Your task to perform on an android device: open a new tab in the chrome app Image 0: 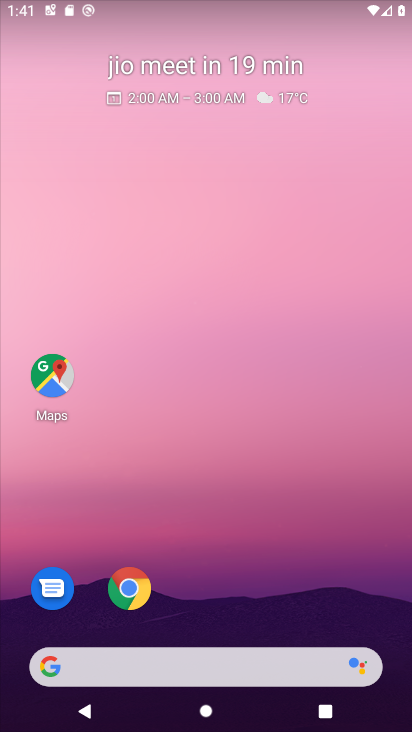
Step 0: click (101, 592)
Your task to perform on an android device: open a new tab in the chrome app Image 1: 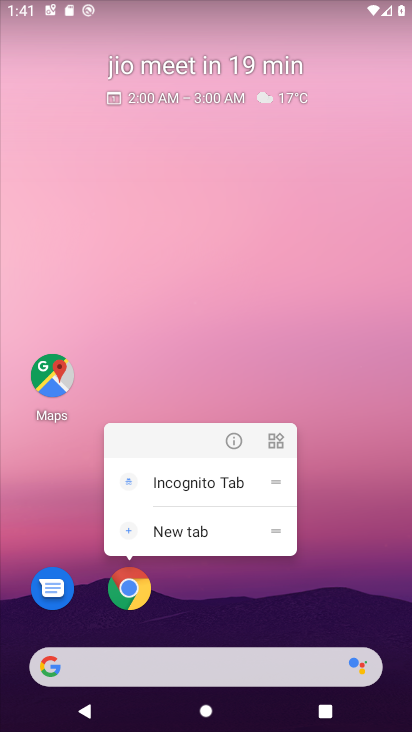
Step 1: click (137, 596)
Your task to perform on an android device: open a new tab in the chrome app Image 2: 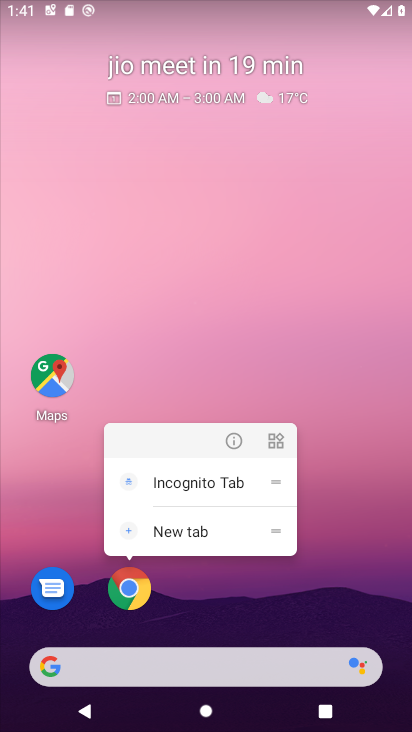
Step 2: click (137, 596)
Your task to perform on an android device: open a new tab in the chrome app Image 3: 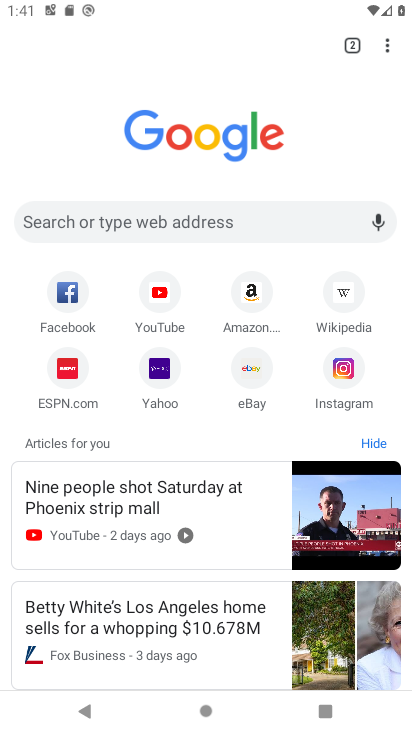
Step 3: click (388, 48)
Your task to perform on an android device: open a new tab in the chrome app Image 4: 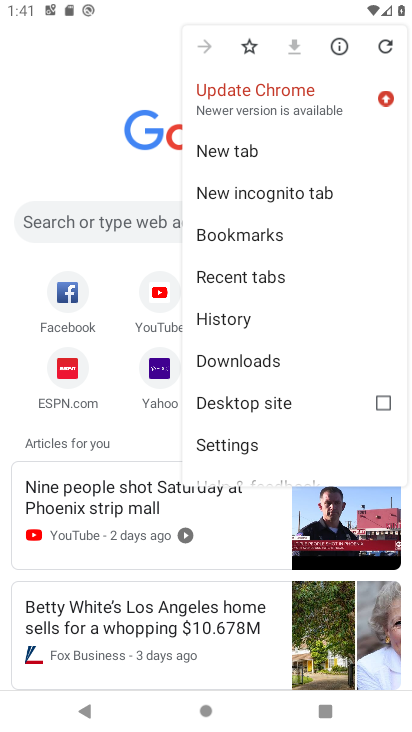
Step 4: click (258, 160)
Your task to perform on an android device: open a new tab in the chrome app Image 5: 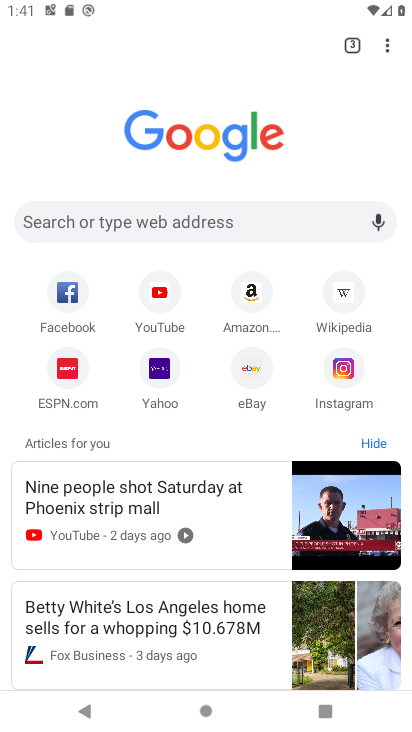
Step 5: task complete